Your task to perform on an android device: When is my next appointment? Image 0: 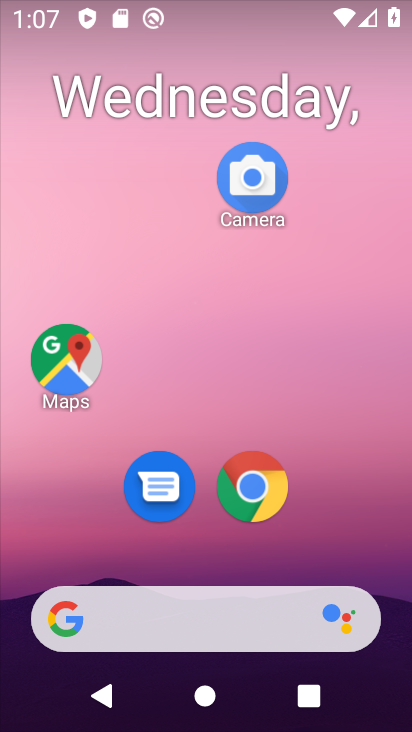
Step 0: drag from (233, 651) to (306, 204)
Your task to perform on an android device: When is my next appointment? Image 1: 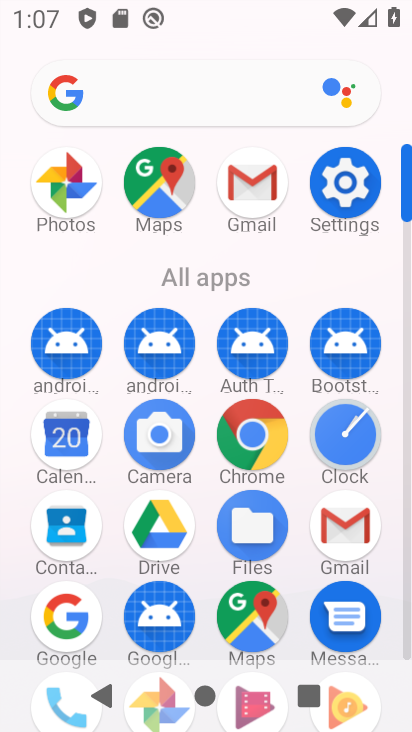
Step 1: click (70, 441)
Your task to perform on an android device: When is my next appointment? Image 2: 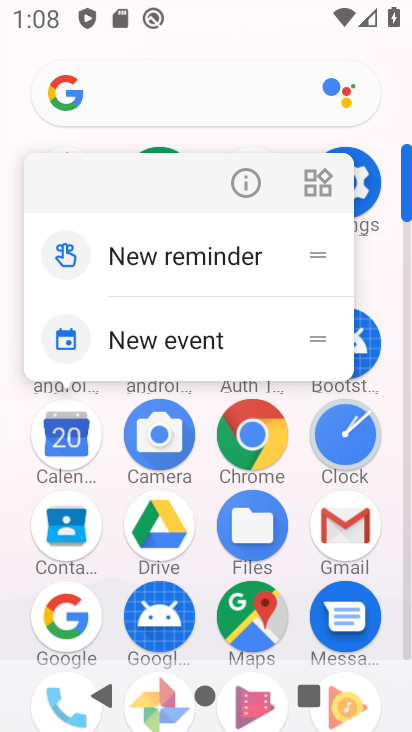
Step 2: click (78, 432)
Your task to perform on an android device: When is my next appointment? Image 3: 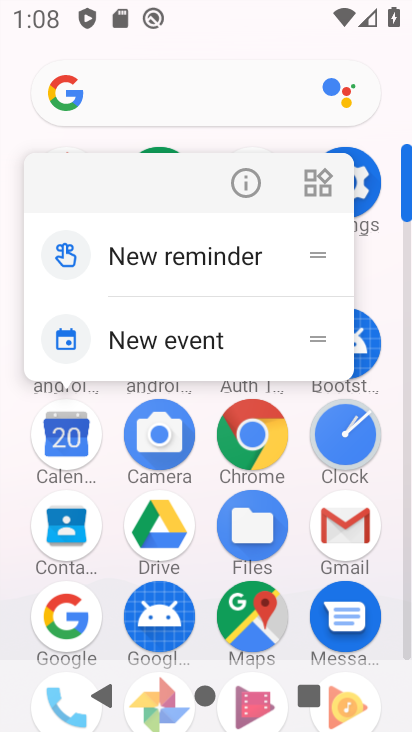
Step 3: click (57, 446)
Your task to perform on an android device: When is my next appointment? Image 4: 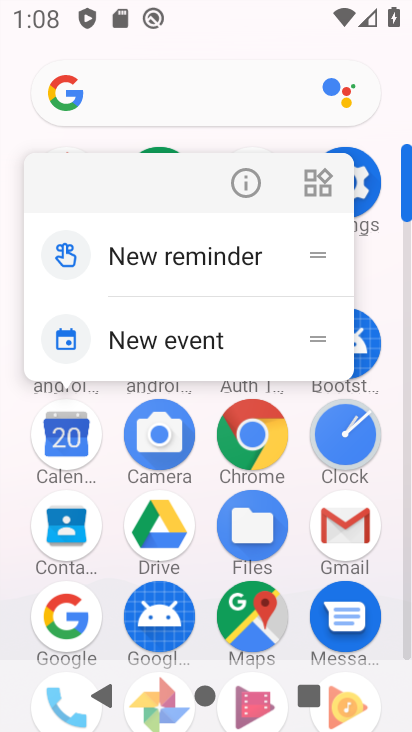
Step 4: click (57, 446)
Your task to perform on an android device: When is my next appointment? Image 5: 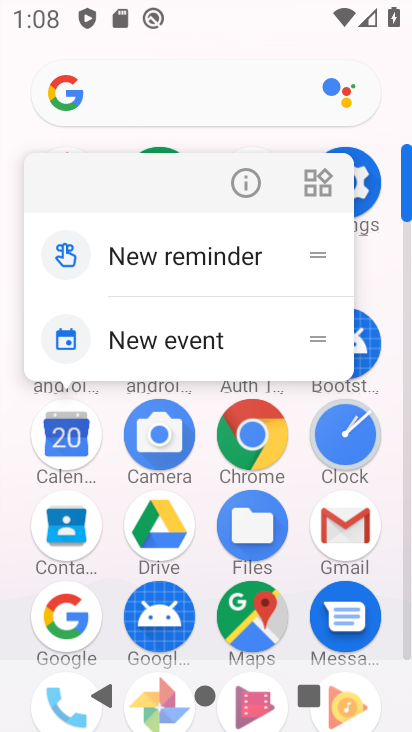
Step 5: click (57, 445)
Your task to perform on an android device: When is my next appointment? Image 6: 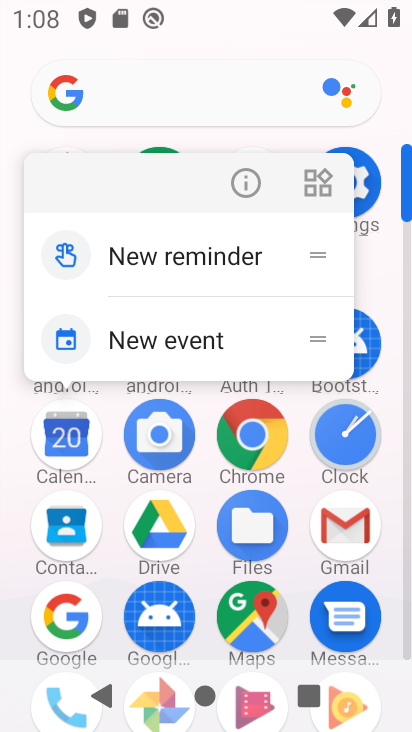
Step 6: click (62, 439)
Your task to perform on an android device: When is my next appointment? Image 7: 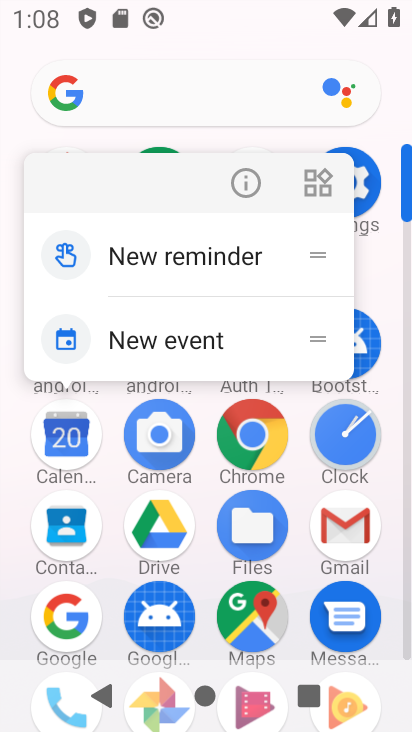
Step 7: click (62, 439)
Your task to perform on an android device: When is my next appointment? Image 8: 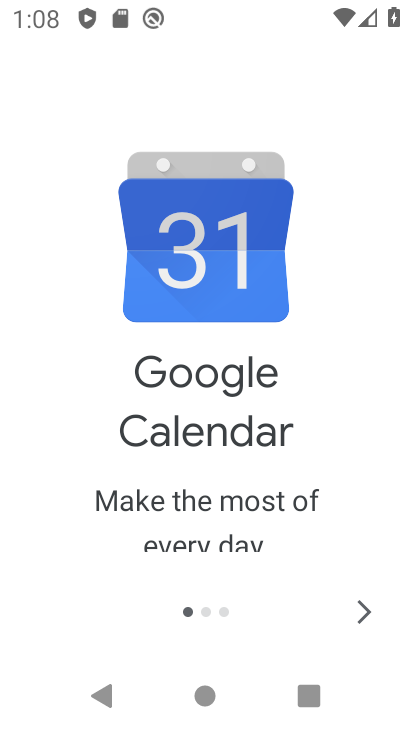
Step 8: drag from (62, 439) to (205, 559)
Your task to perform on an android device: When is my next appointment? Image 9: 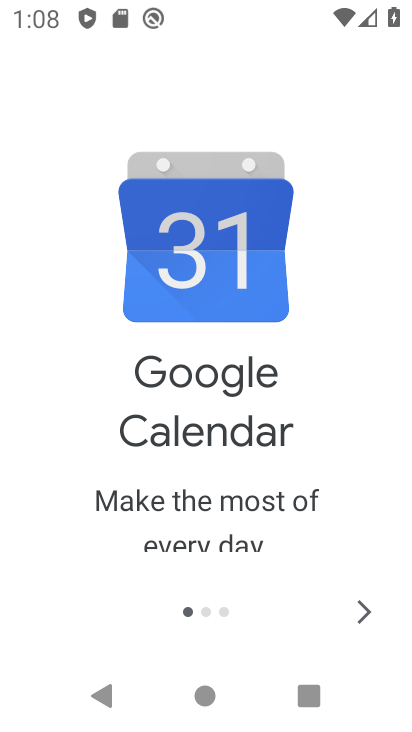
Step 9: click (359, 605)
Your task to perform on an android device: When is my next appointment? Image 10: 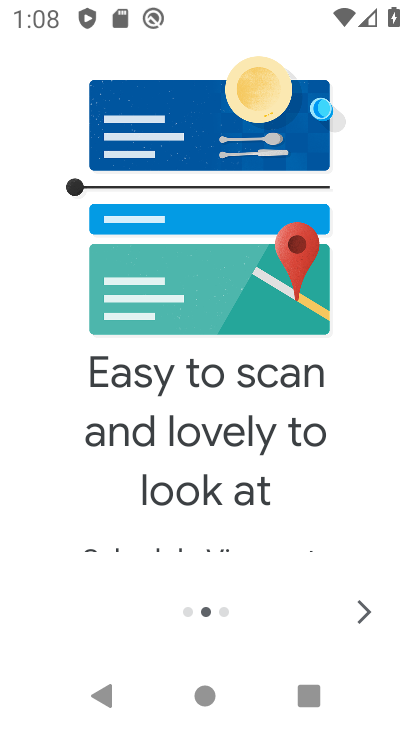
Step 10: click (357, 609)
Your task to perform on an android device: When is my next appointment? Image 11: 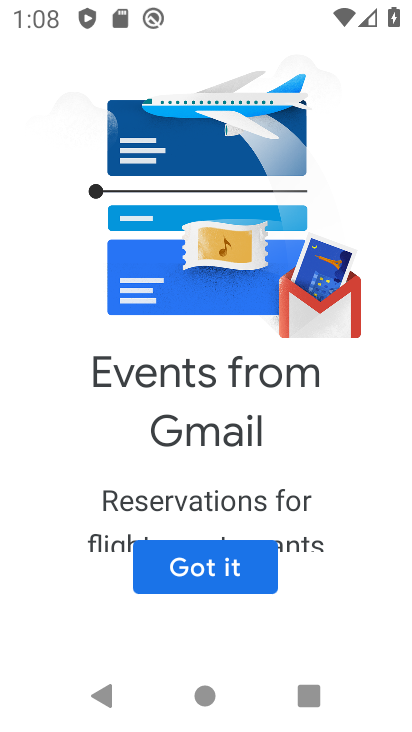
Step 11: click (250, 579)
Your task to perform on an android device: When is my next appointment? Image 12: 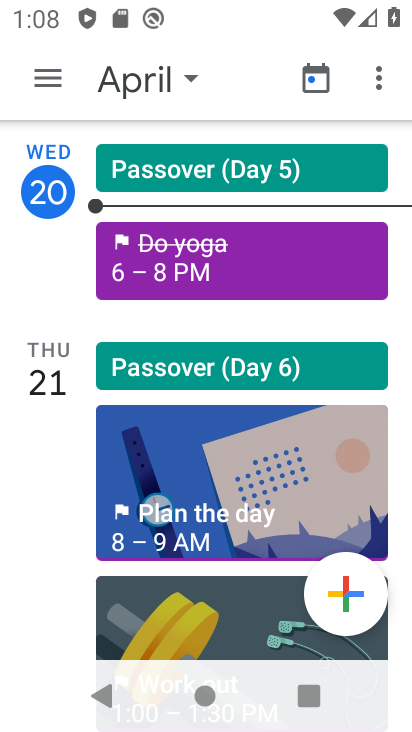
Step 12: click (36, 72)
Your task to perform on an android device: When is my next appointment? Image 13: 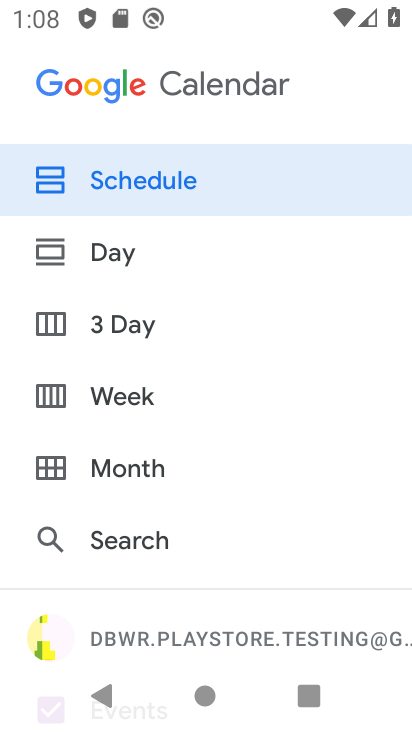
Step 13: click (147, 186)
Your task to perform on an android device: When is my next appointment? Image 14: 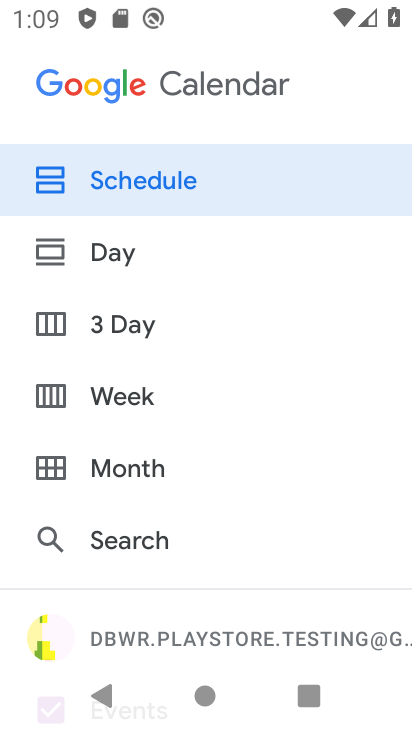
Step 14: click (149, 191)
Your task to perform on an android device: When is my next appointment? Image 15: 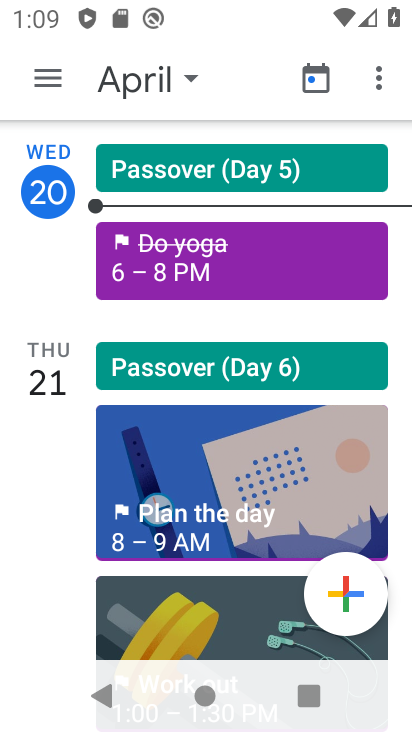
Step 15: task complete